Your task to perform on an android device: turn off picture-in-picture Image 0: 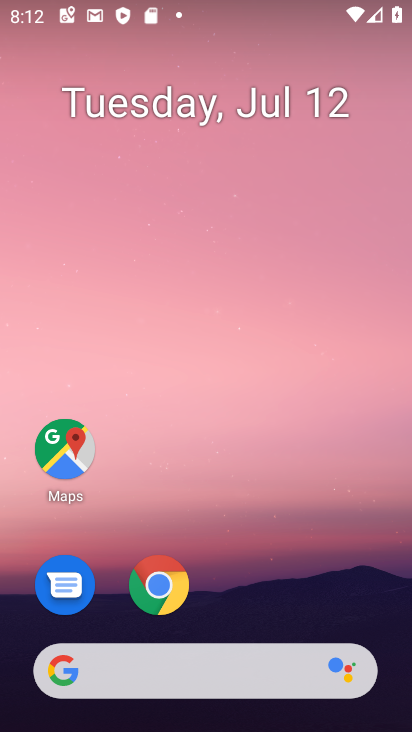
Step 0: click (158, 586)
Your task to perform on an android device: turn off picture-in-picture Image 1: 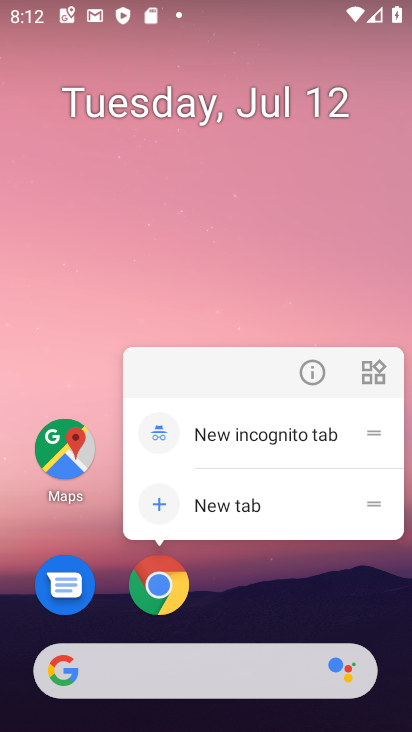
Step 1: click (312, 370)
Your task to perform on an android device: turn off picture-in-picture Image 2: 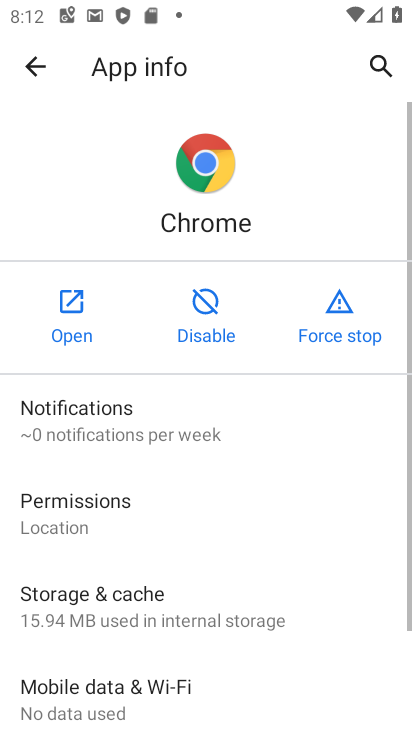
Step 2: drag from (233, 539) to (300, 140)
Your task to perform on an android device: turn off picture-in-picture Image 3: 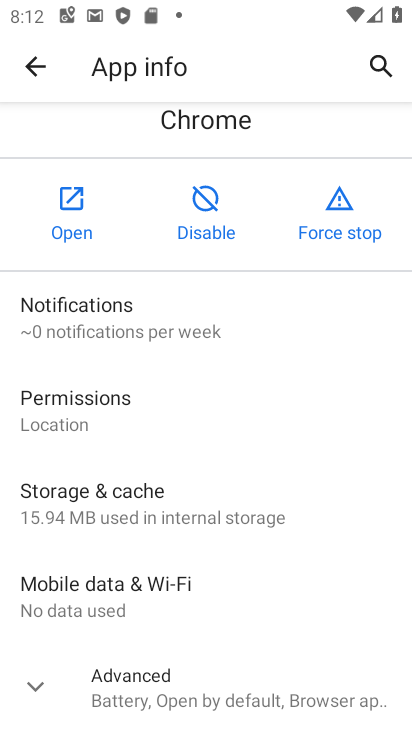
Step 3: click (36, 682)
Your task to perform on an android device: turn off picture-in-picture Image 4: 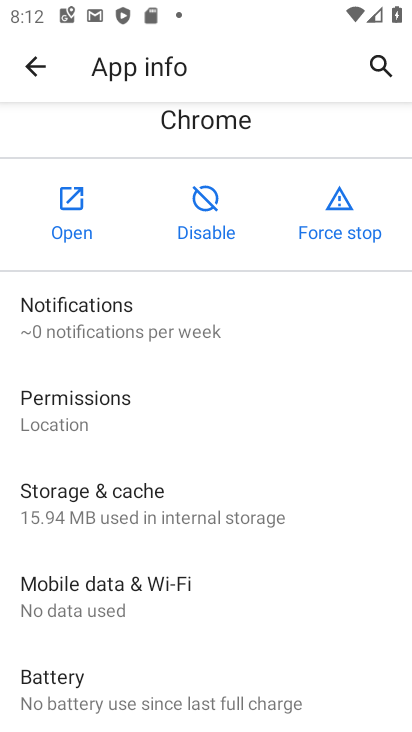
Step 4: drag from (222, 604) to (279, 57)
Your task to perform on an android device: turn off picture-in-picture Image 5: 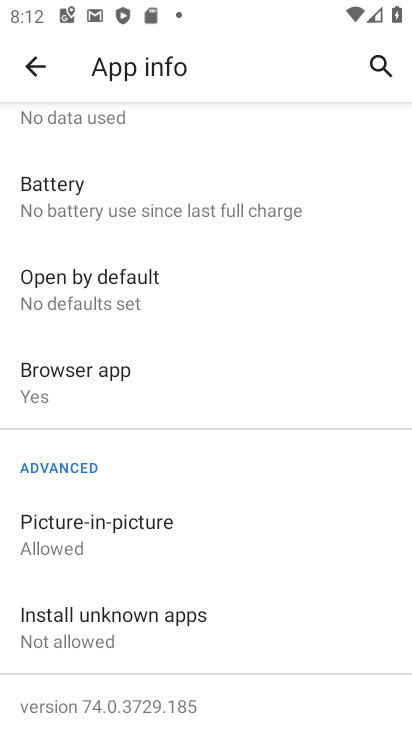
Step 5: click (129, 533)
Your task to perform on an android device: turn off picture-in-picture Image 6: 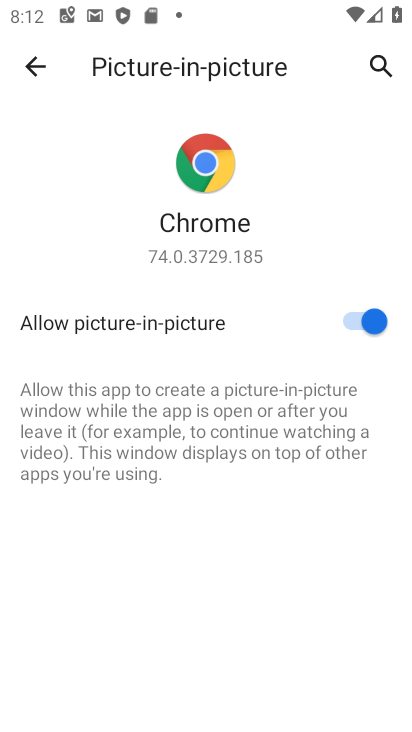
Step 6: click (362, 314)
Your task to perform on an android device: turn off picture-in-picture Image 7: 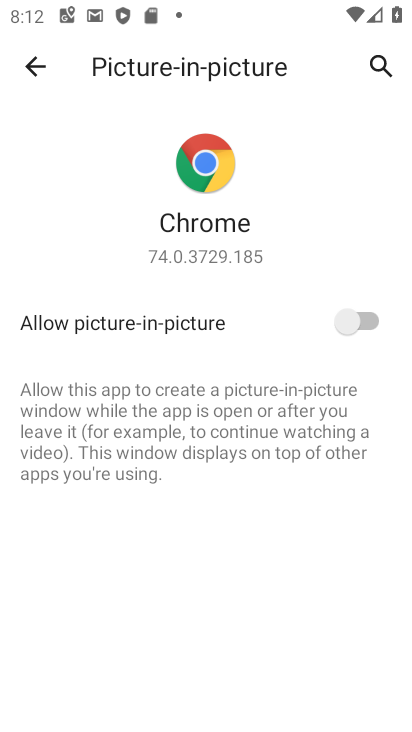
Step 7: task complete